Your task to perform on an android device: check google app version Image 0: 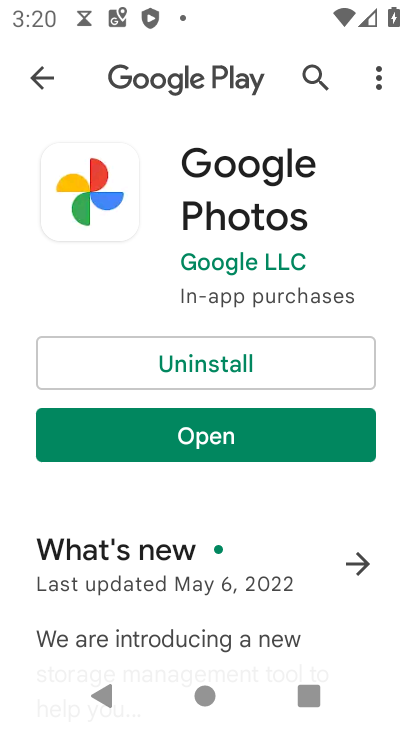
Step 0: press home button
Your task to perform on an android device: check google app version Image 1: 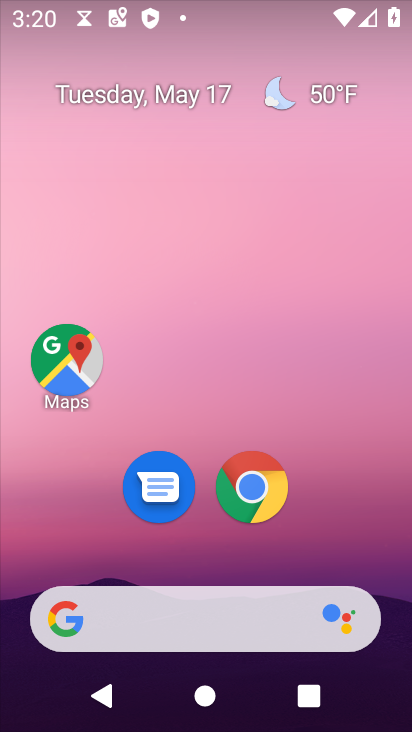
Step 1: click (249, 485)
Your task to perform on an android device: check google app version Image 2: 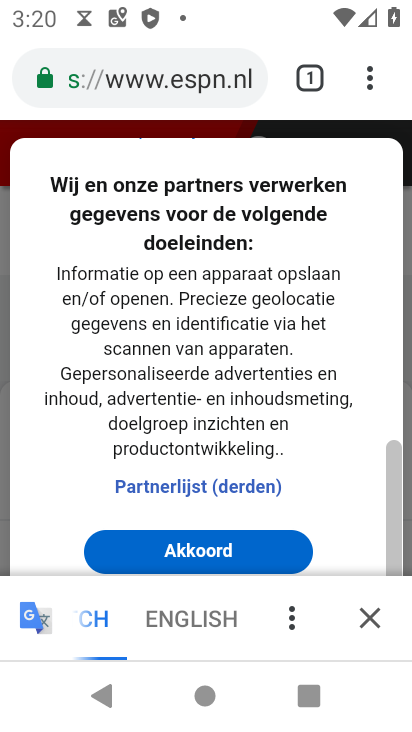
Step 2: click (371, 84)
Your task to perform on an android device: check google app version Image 3: 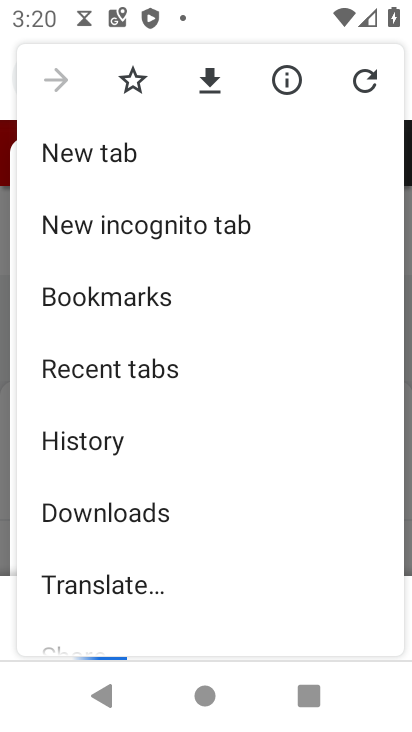
Step 3: drag from (197, 594) to (283, 74)
Your task to perform on an android device: check google app version Image 4: 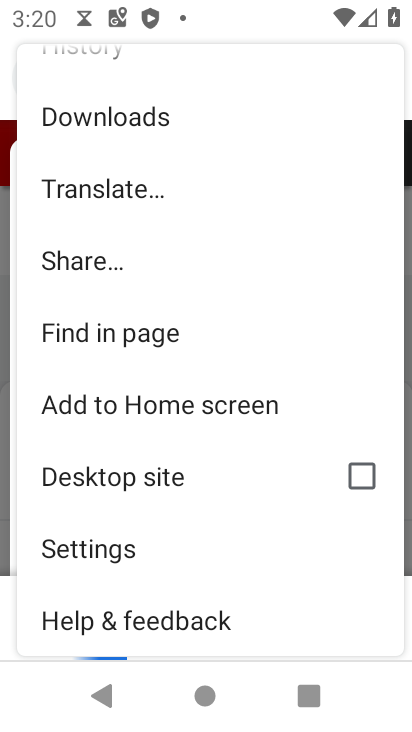
Step 4: click (68, 559)
Your task to perform on an android device: check google app version Image 5: 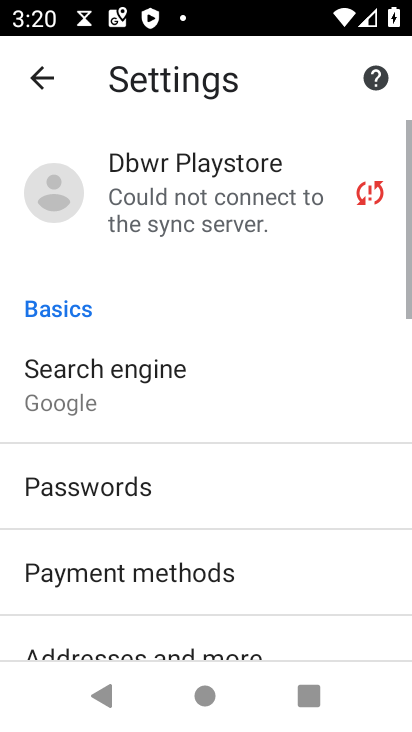
Step 5: drag from (288, 618) to (234, 151)
Your task to perform on an android device: check google app version Image 6: 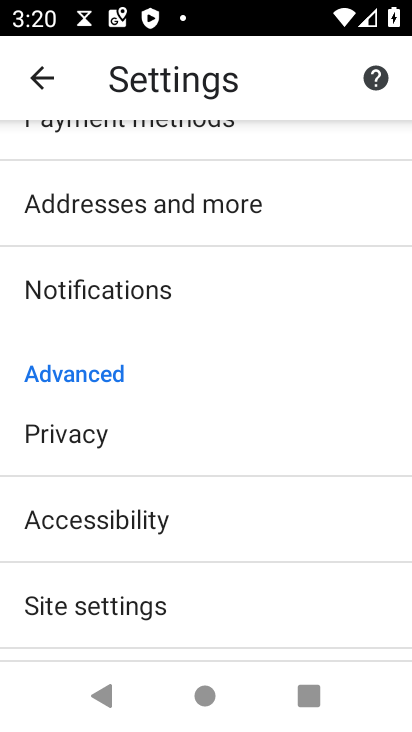
Step 6: drag from (246, 623) to (342, 91)
Your task to perform on an android device: check google app version Image 7: 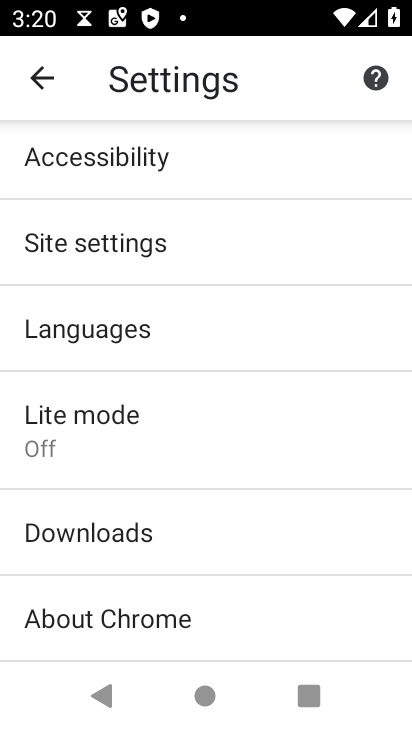
Step 7: click (99, 629)
Your task to perform on an android device: check google app version Image 8: 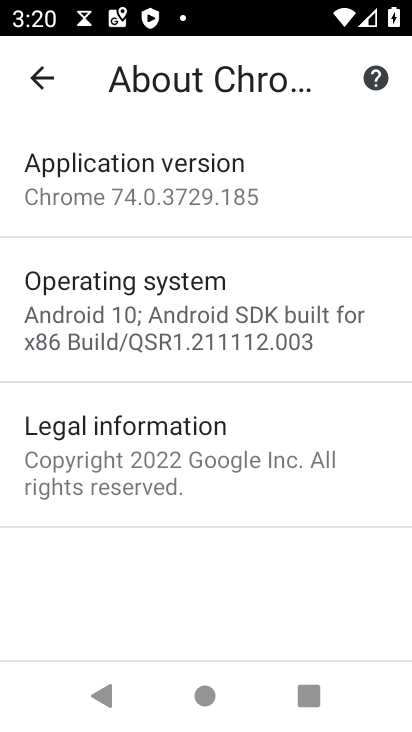
Step 8: task complete